Your task to perform on an android device: Show me popular videos on Youtube Image 0: 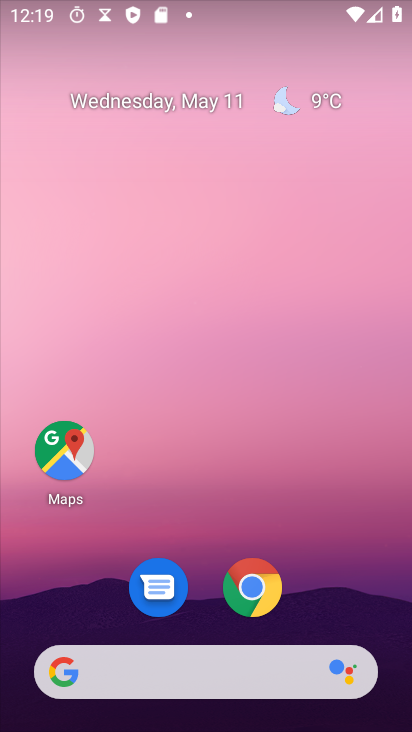
Step 0: drag from (385, 641) to (251, 183)
Your task to perform on an android device: Show me popular videos on Youtube Image 1: 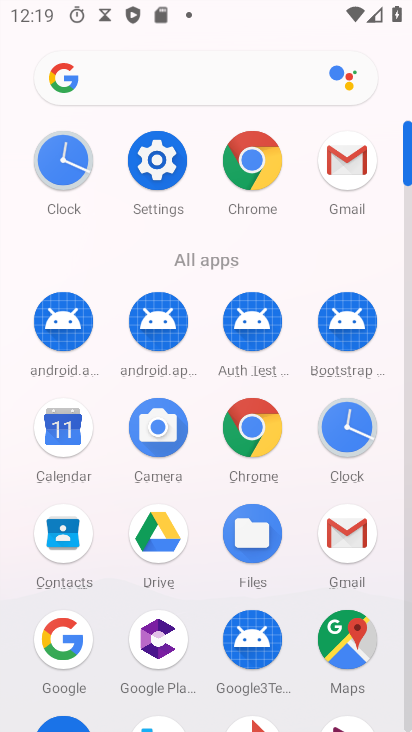
Step 1: drag from (313, 603) to (249, 259)
Your task to perform on an android device: Show me popular videos on Youtube Image 2: 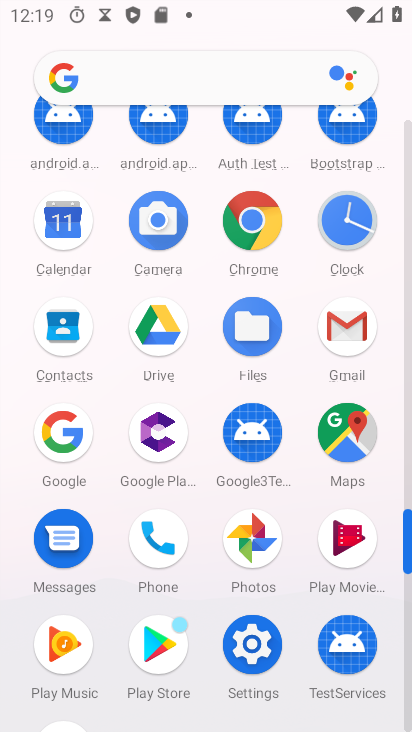
Step 2: drag from (273, 642) to (277, 264)
Your task to perform on an android device: Show me popular videos on Youtube Image 3: 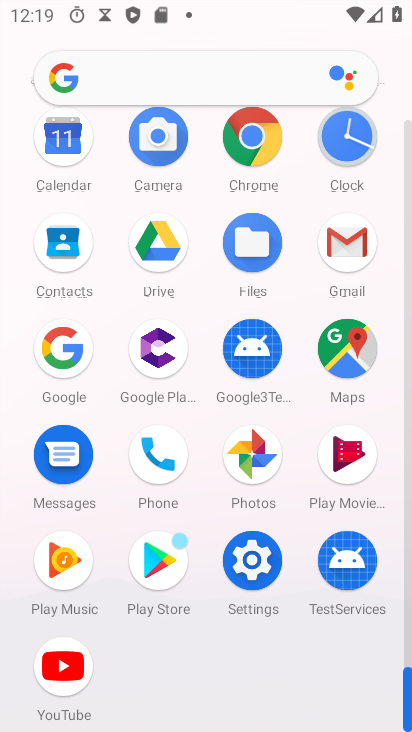
Step 3: click (54, 671)
Your task to perform on an android device: Show me popular videos on Youtube Image 4: 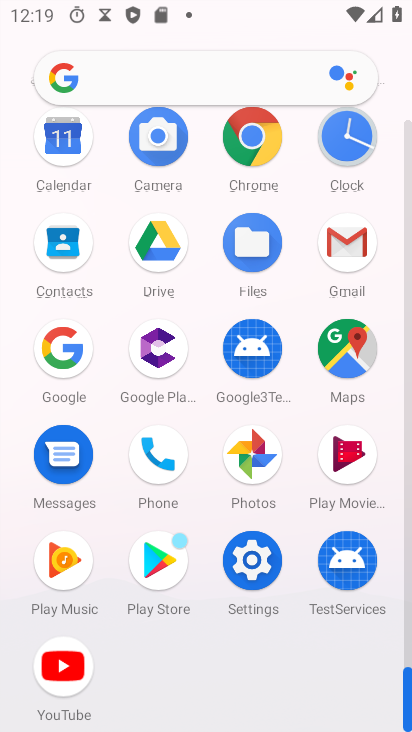
Step 4: click (63, 672)
Your task to perform on an android device: Show me popular videos on Youtube Image 5: 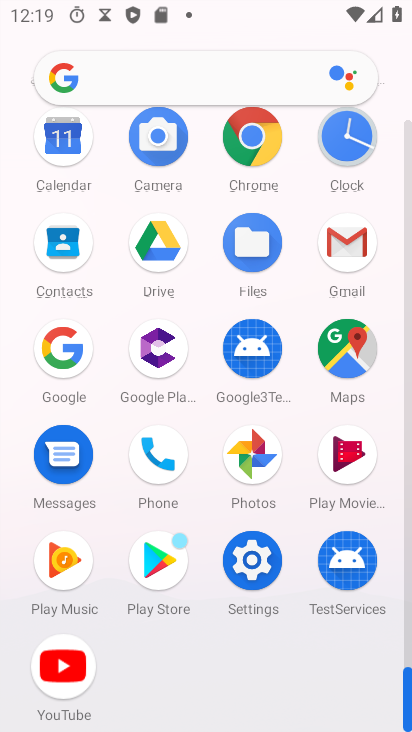
Step 5: click (65, 672)
Your task to perform on an android device: Show me popular videos on Youtube Image 6: 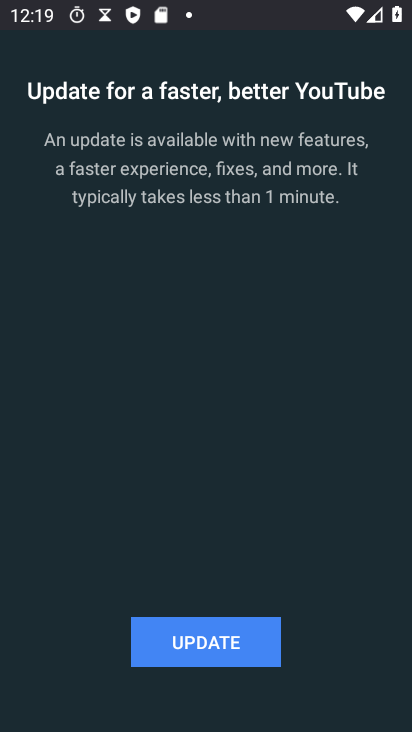
Step 6: click (217, 650)
Your task to perform on an android device: Show me popular videos on Youtube Image 7: 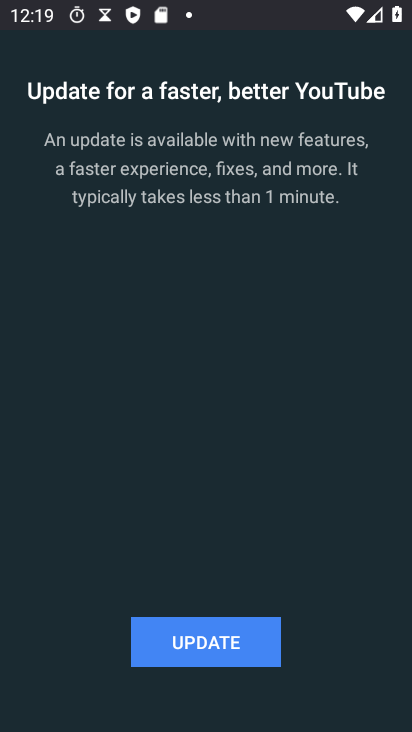
Step 7: click (218, 647)
Your task to perform on an android device: Show me popular videos on Youtube Image 8: 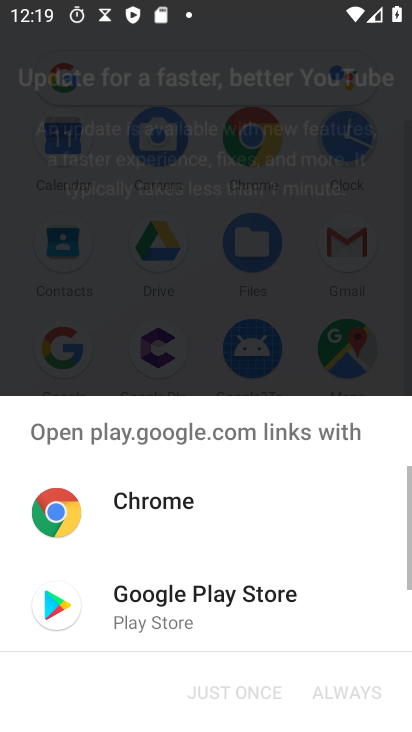
Step 8: click (219, 646)
Your task to perform on an android device: Show me popular videos on Youtube Image 9: 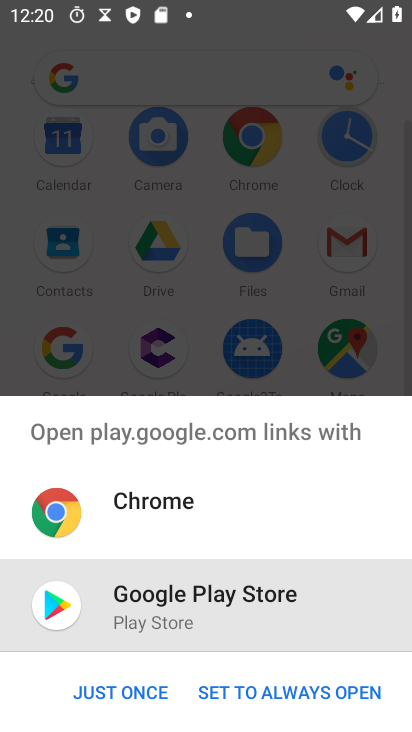
Step 9: click (179, 633)
Your task to perform on an android device: Show me popular videos on Youtube Image 10: 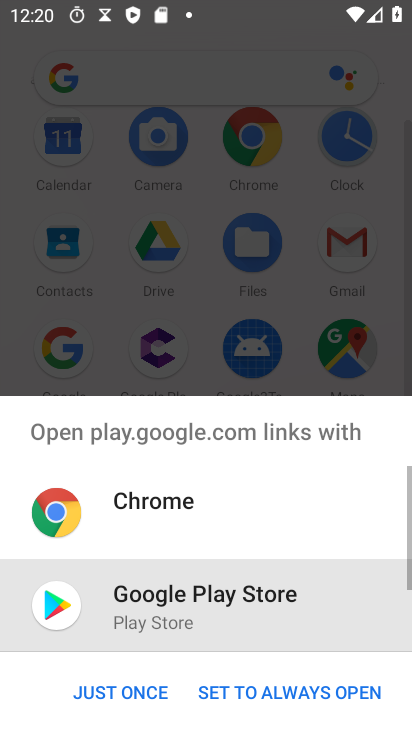
Step 10: click (170, 571)
Your task to perform on an android device: Show me popular videos on Youtube Image 11: 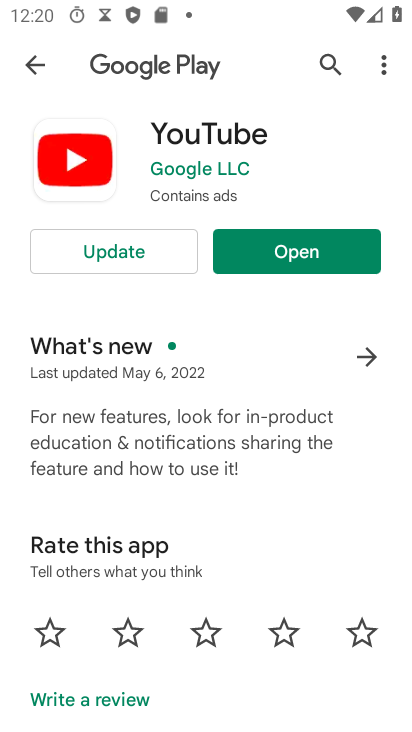
Step 11: click (113, 243)
Your task to perform on an android device: Show me popular videos on Youtube Image 12: 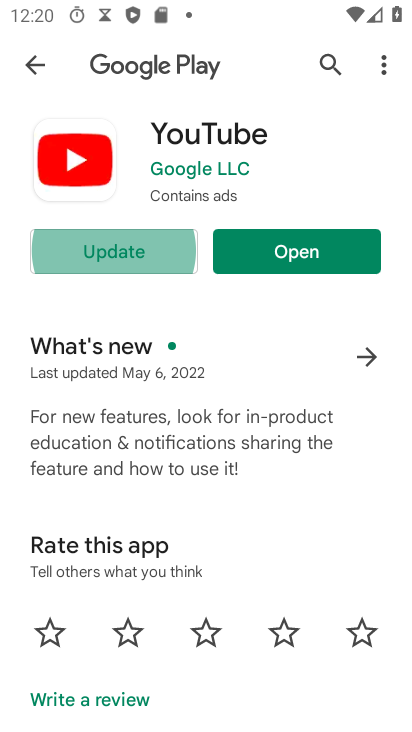
Step 12: click (113, 243)
Your task to perform on an android device: Show me popular videos on Youtube Image 13: 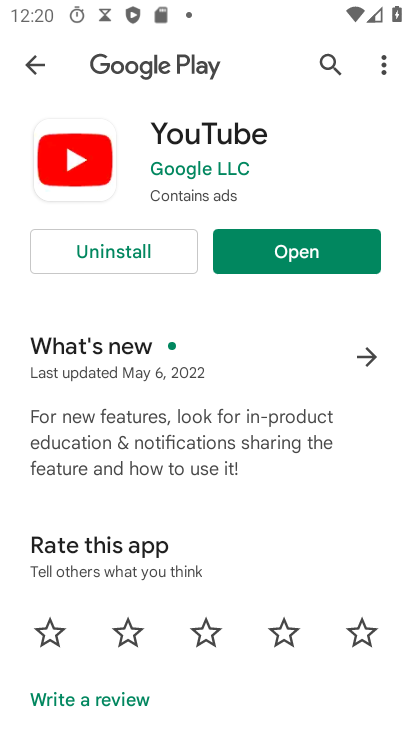
Step 13: click (284, 252)
Your task to perform on an android device: Show me popular videos on Youtube Image 14: 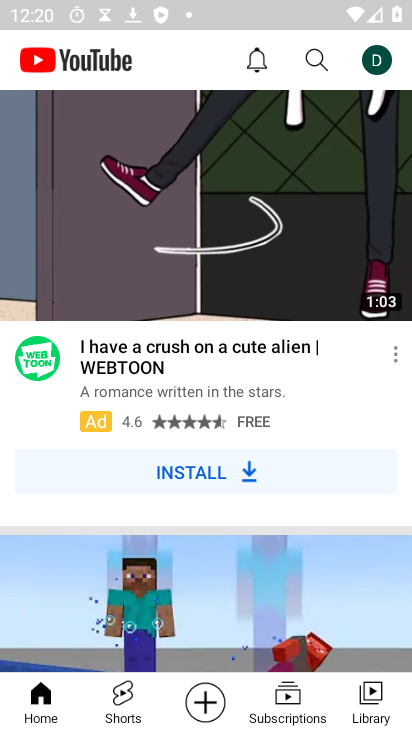
Step 14: drag from (242, 567) to (229, 318)
Your task to perform on an android device: Show me popular videos on Youtube Image 15: 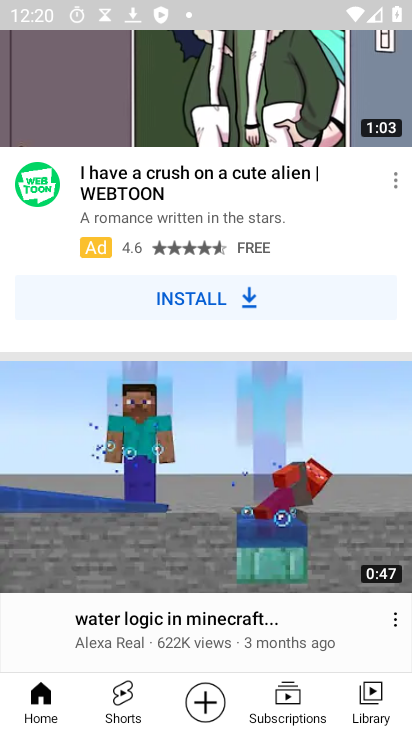
Step 15: drag from (261, 490) to (240, 195)
Your task to perform on an android device: Show me popular videos on Youtube Image 16: 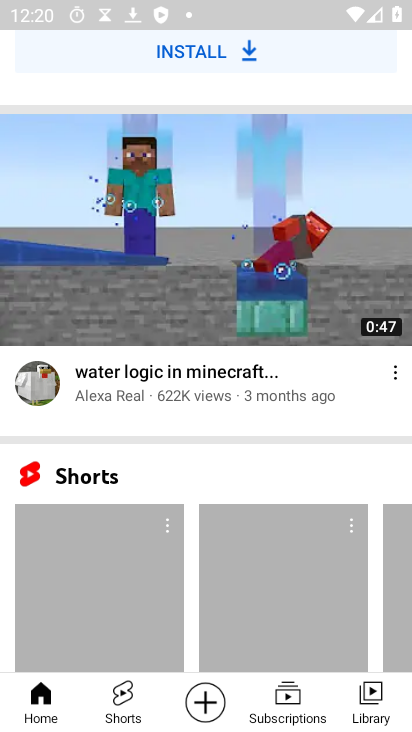
Step 16: drag from (231, 449) to (232, 231)
Your task to perform on an android device: Show me popular videos on Youtube Image 17: 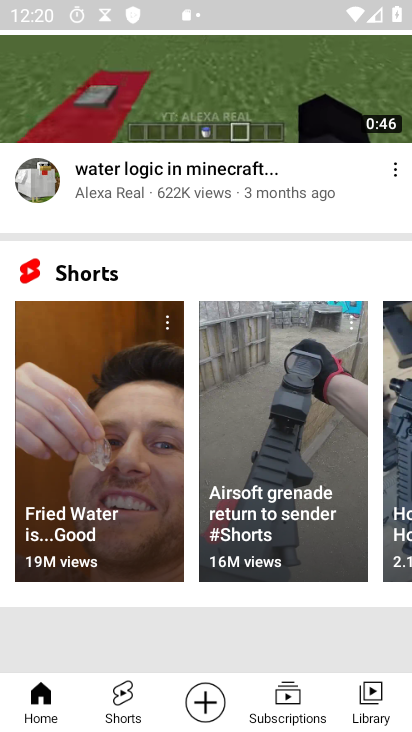
Step 17: drag from (275, 351) to (271, 284)
Your task to perform on an android device: Show me popular videos on Youtube Image 18: 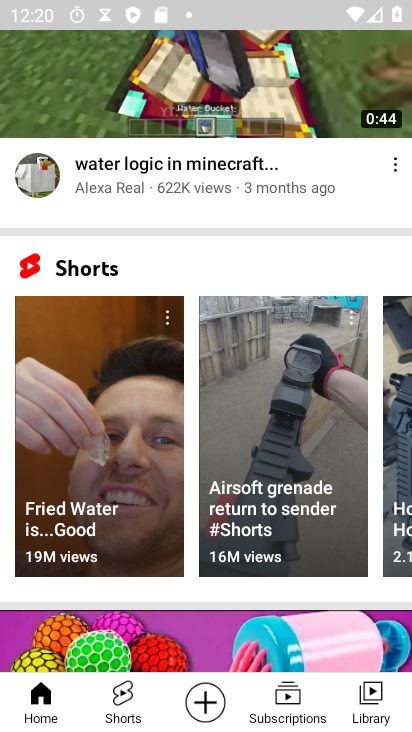
Step 18: click (131, 484)
Your task to perform on an android device: Show me popular videos on Youtube Image 19: 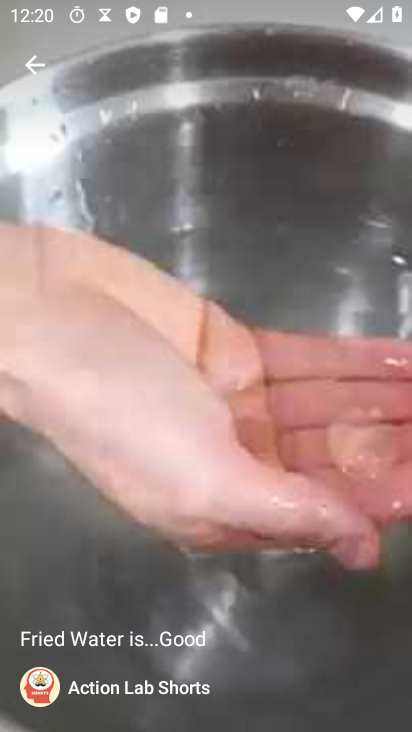
Step 19: click (131, 481)
Your task to perform on an android device: Show me popular videos on Youtube Image 20: 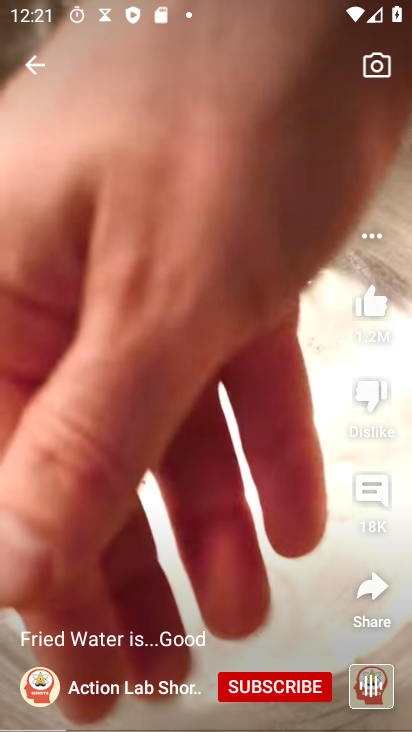
Step 20: task complete